Your task to perform on an android device: open chrome and create a bookmark for the current page Image 0: 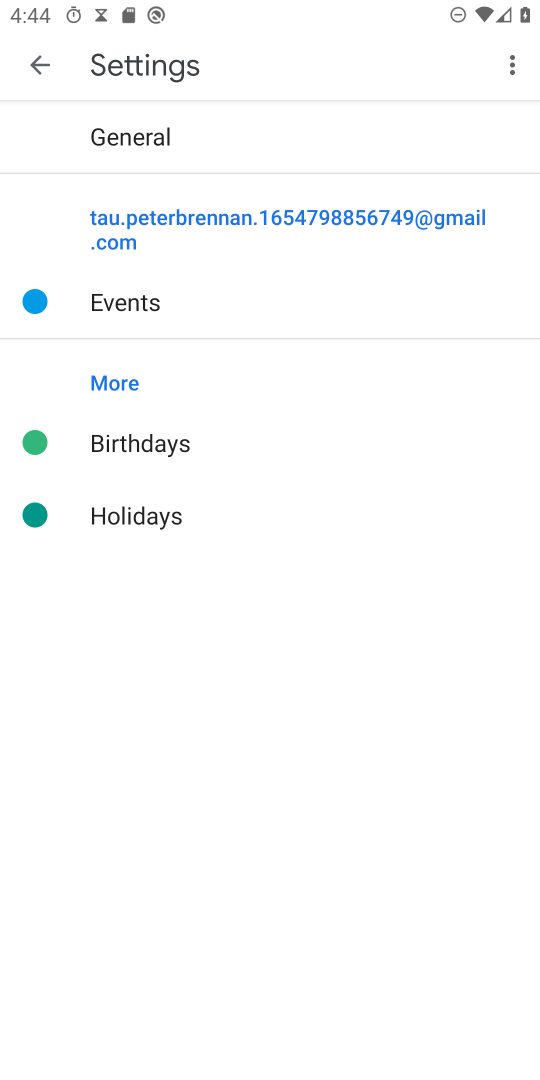
Step 0: press home button
Your task to perform on an android device: open chrome and create a bookmark for the current page Image 1: 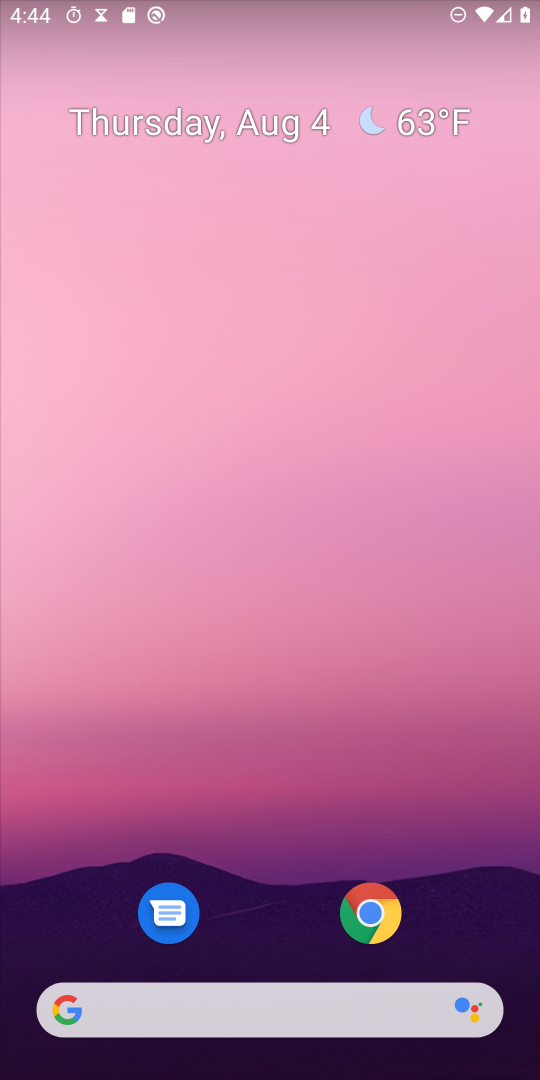
Step 1: drag from (391, 1010) to (504, 7)
Your task to perform on an android device: open chrome and create a bookmark for the current page Image 2: 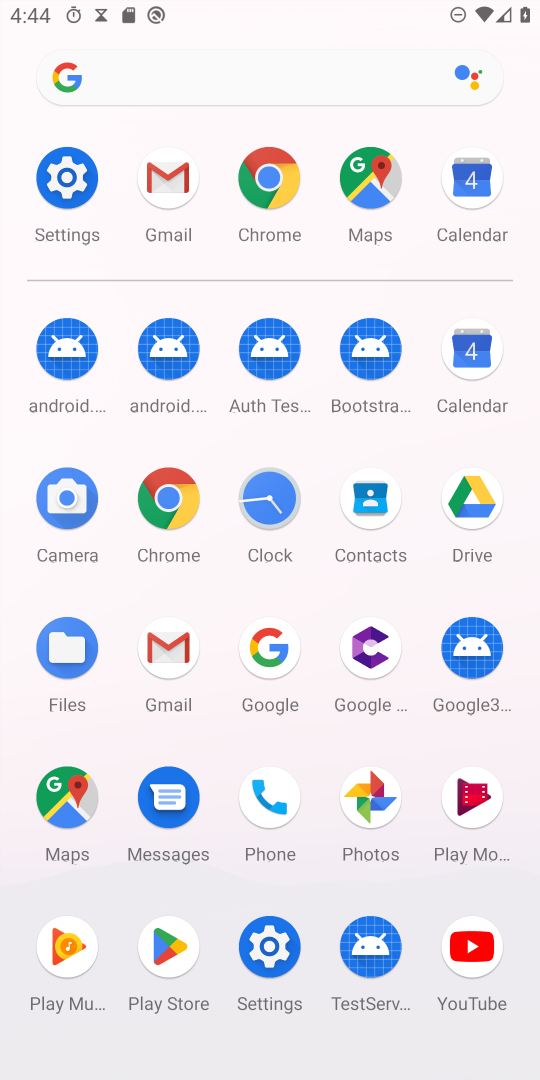
Step 2: click (171, 487)
Your task to perform on an android device: open chrome and create a bookmark for the current page Image 3: 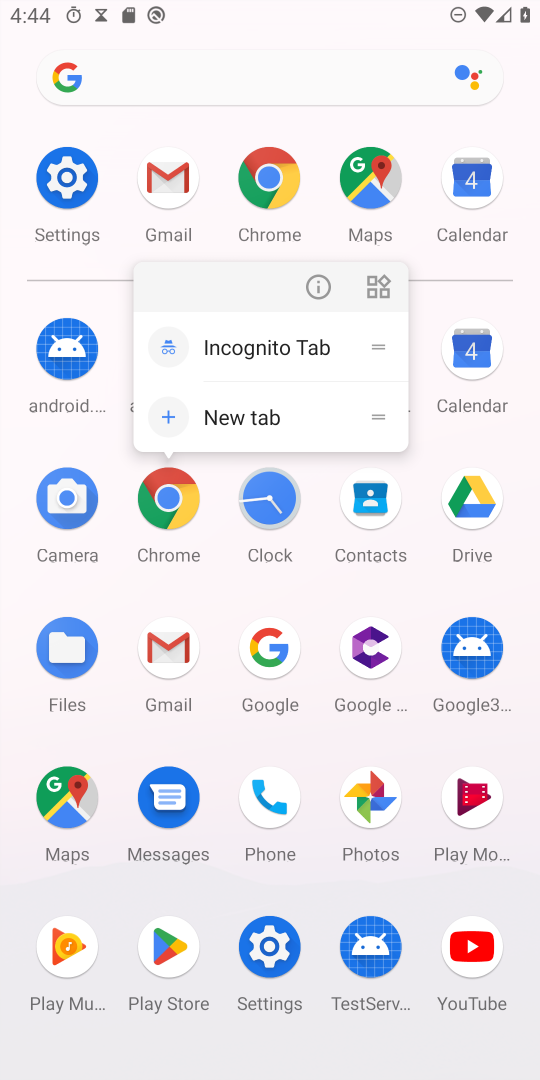
Step 3: click (155, 501)
Your task to perform on an android device: open chrome and create a bookmark for the current page Image 4: 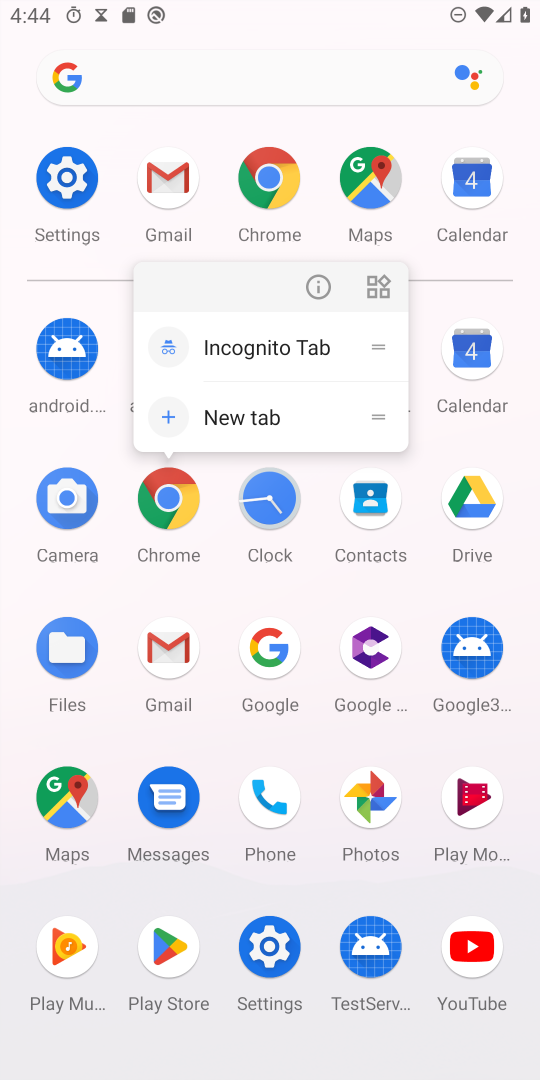
Step 4: click (155, 501)
Your task to perform on an android device: open chrome and create a bookmark for the current page Image 5: 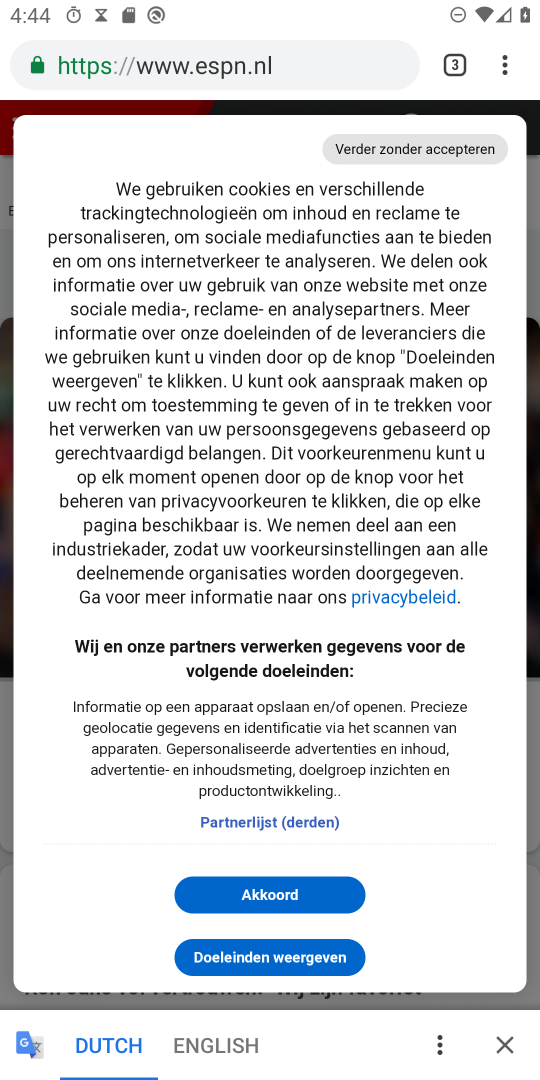
Step 5: task complete